Your task to perform on an android device: What's the news this weekend? Image 0: 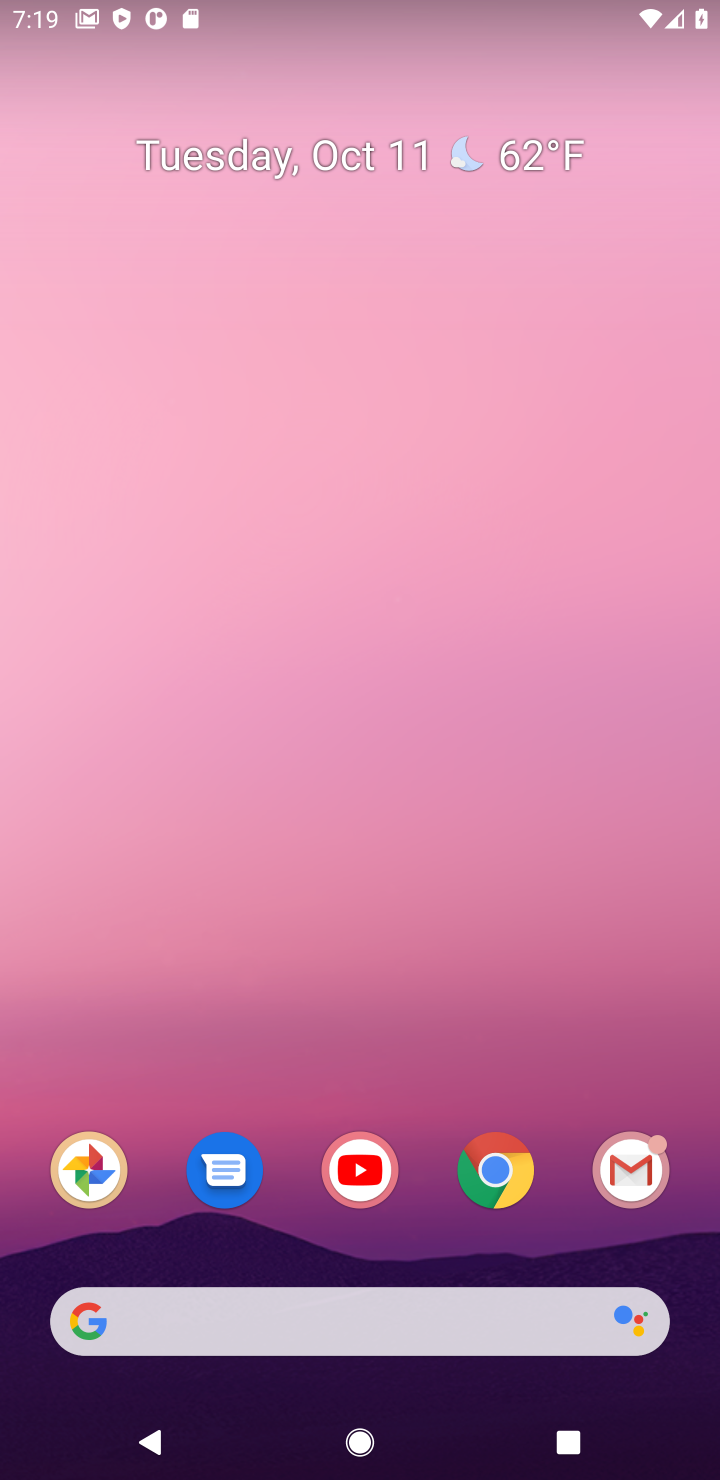
Step 0: drag from (364, 1295) to (418, 352)
Your task to perform on an android device: What's the news this weekend? Image 1: 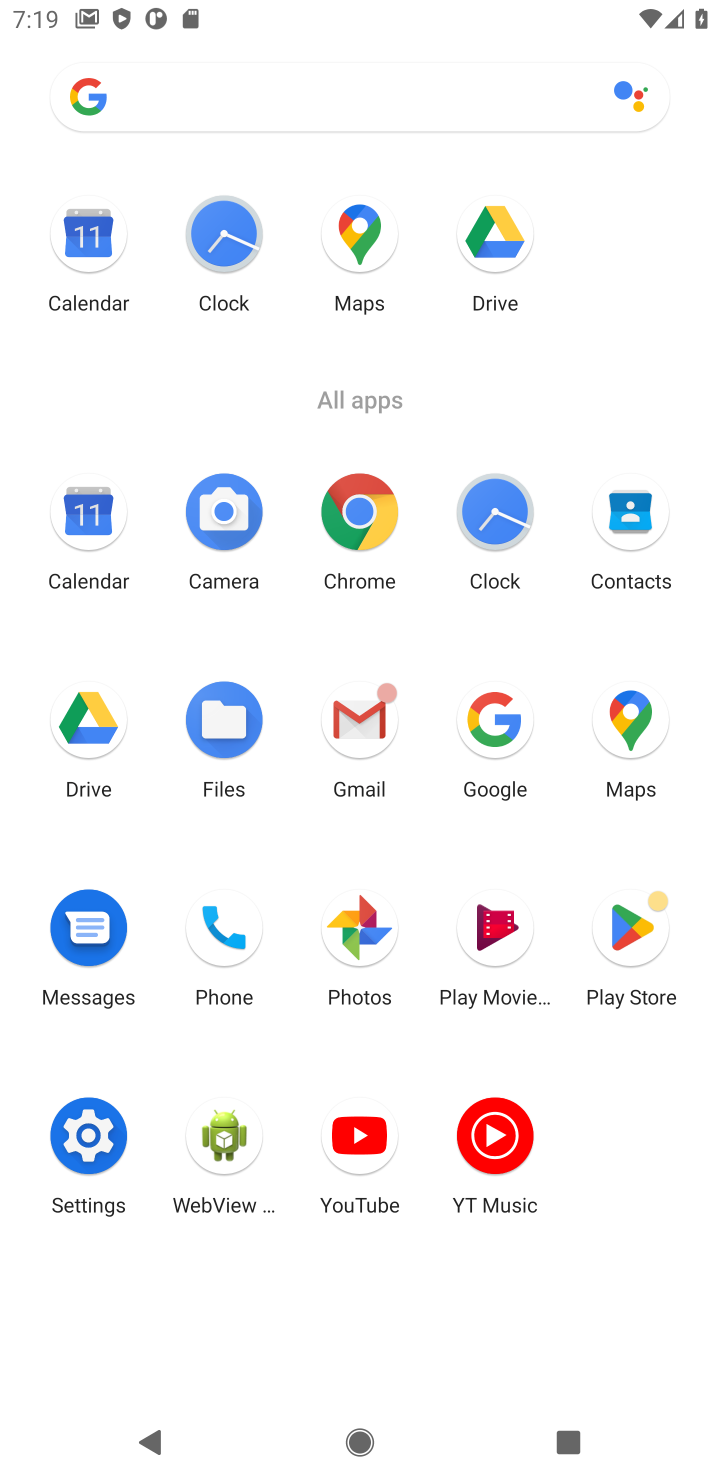
Step 1: click (499, 696)
Your task to perform on an android device: What's the news this weekend? Image 2: 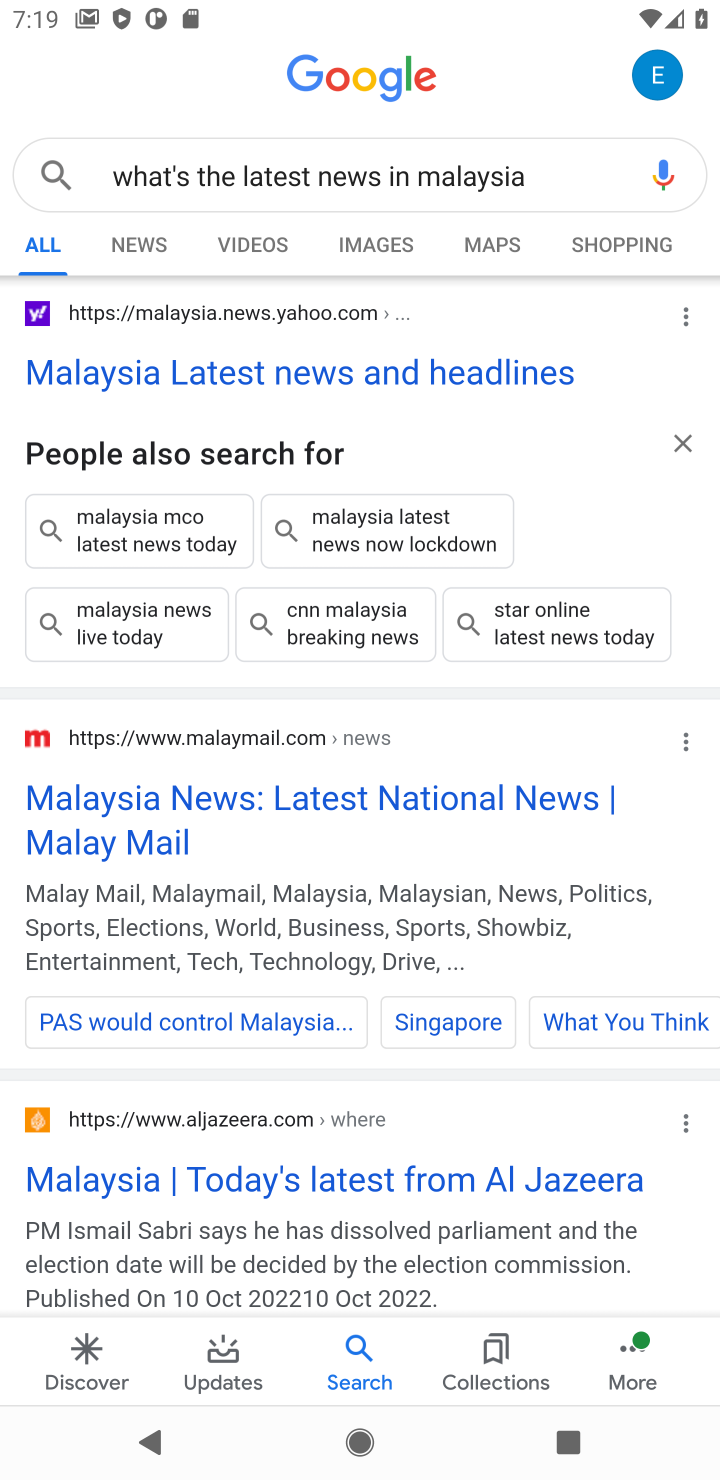
Step 2: click (353, 171)
Your task to perform on an android device: What's the news this weekend? Image 3: 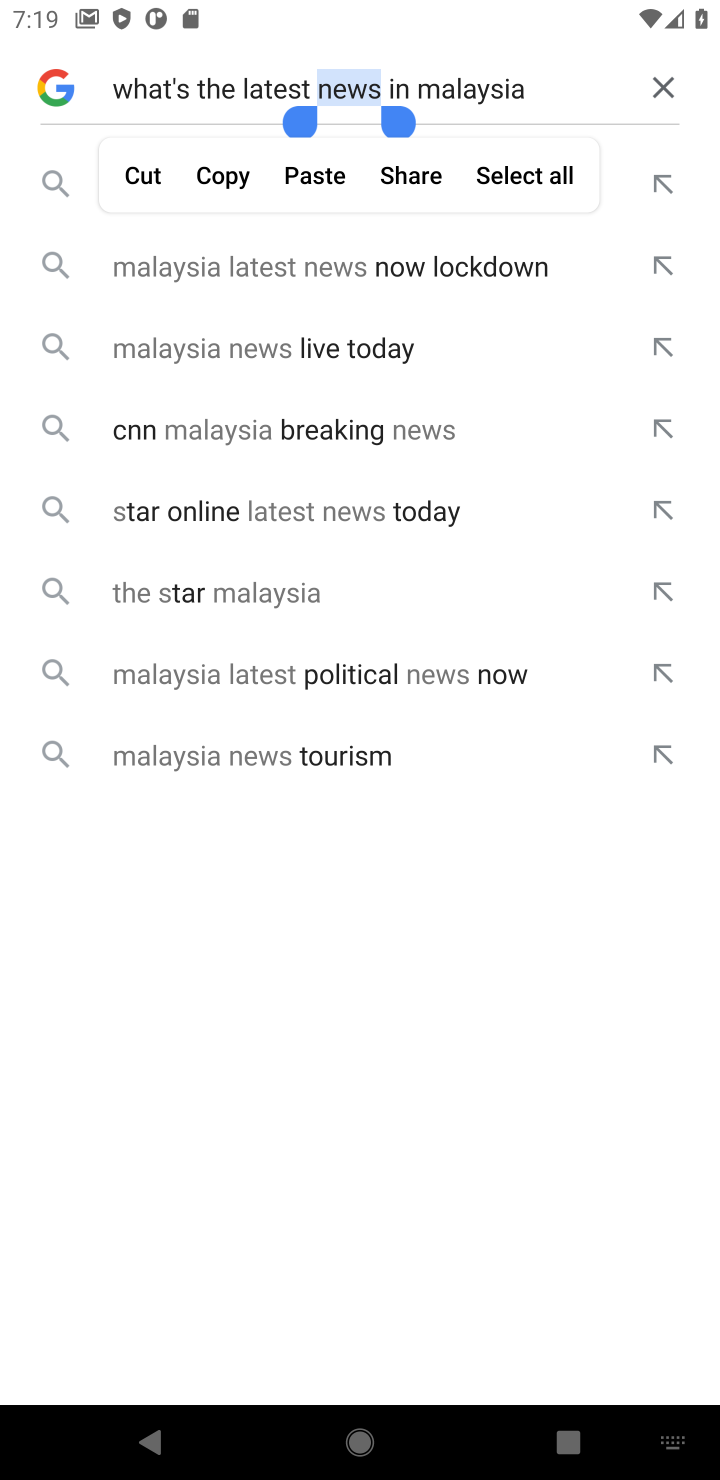
Step 3: click (652, 97)
Your task to perform on an android device: What's the news this weekend? Image 4: 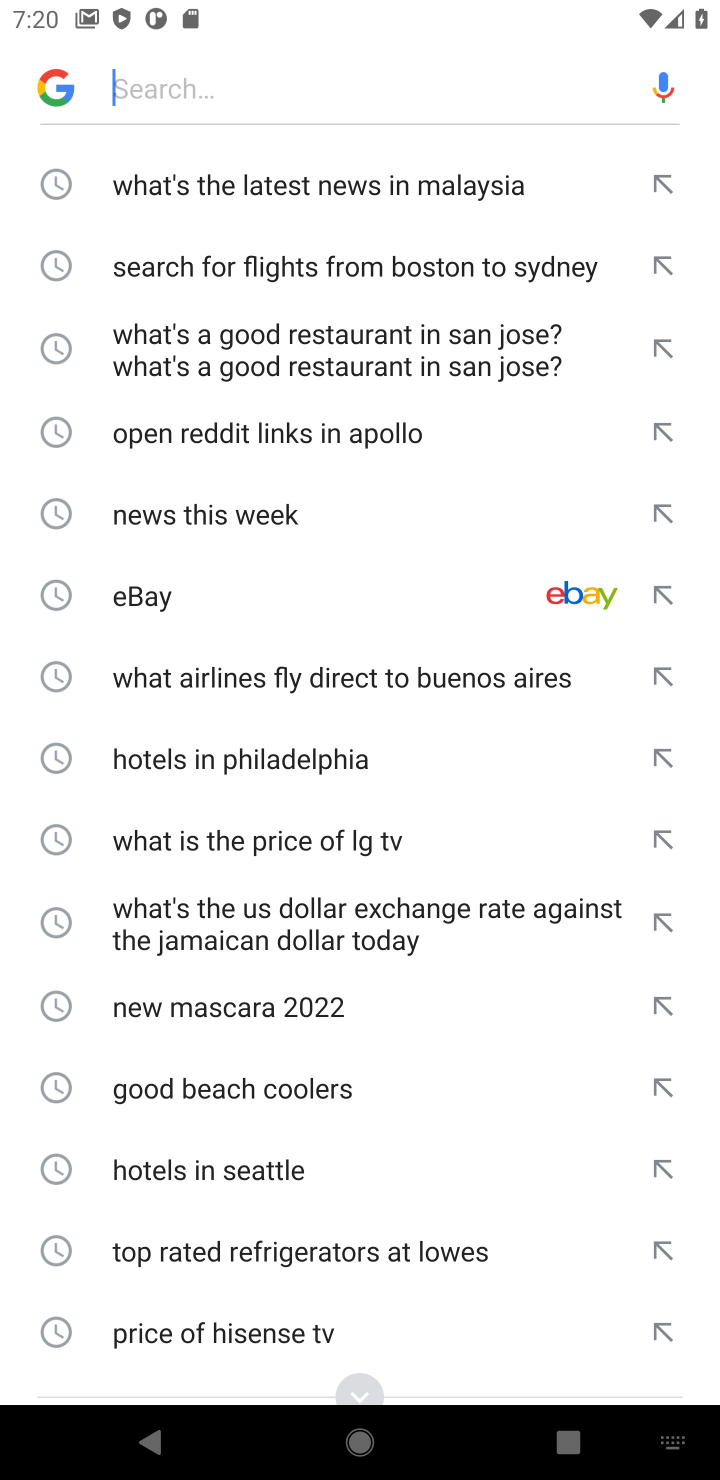
Step 4: click (419, 60)
Your task to perform on an android device: What's the news this weekend? Image 5: 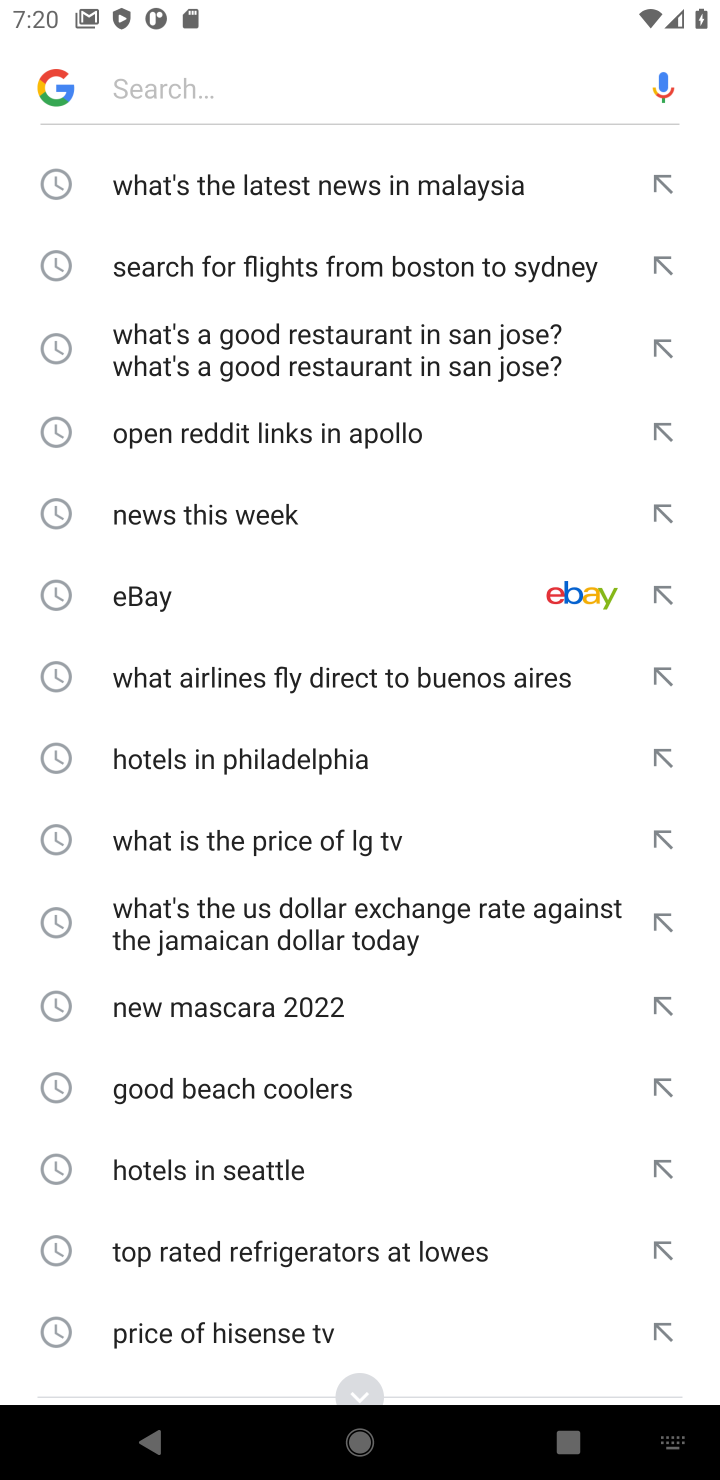
Step 5: type "What's the news this weekend? "
Your task to perform on an android device: What's the news this weekend? Image 6: 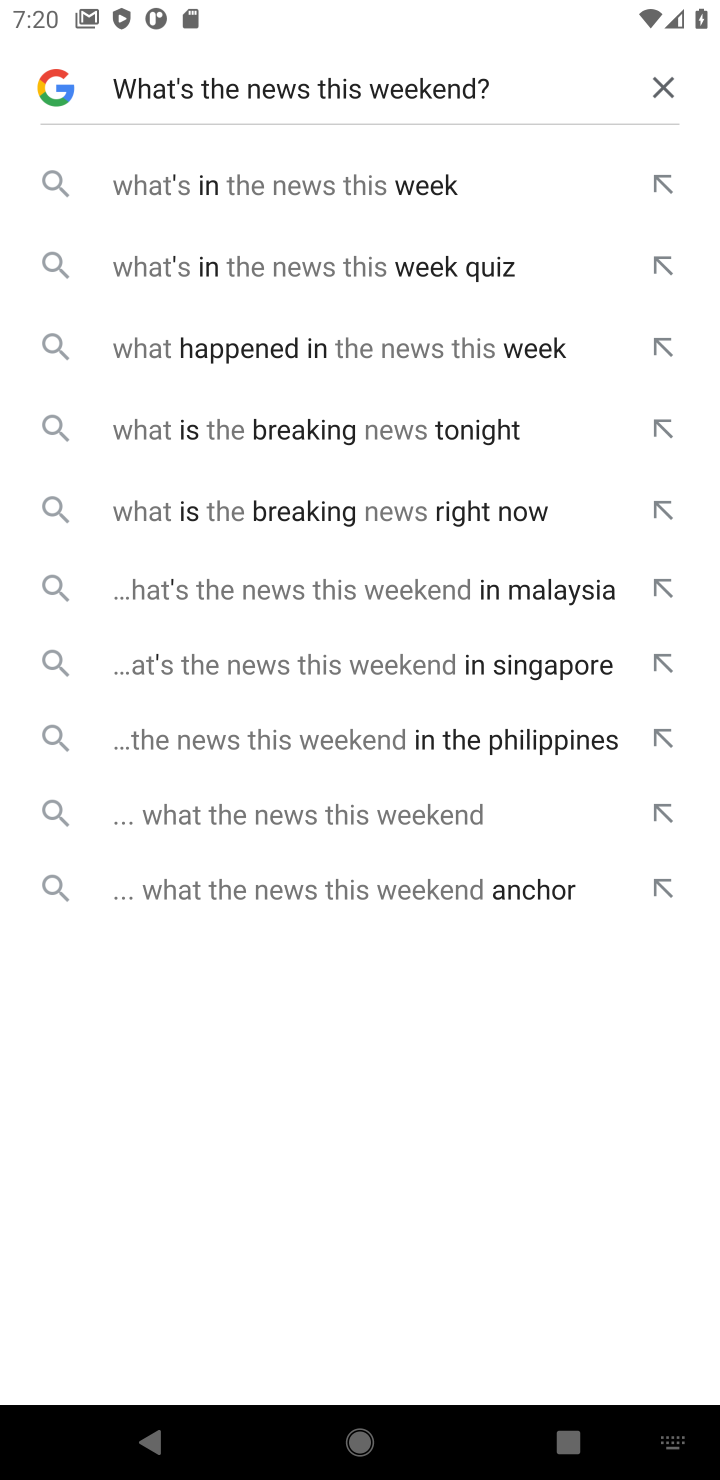
Step 6: click (351, 187)
Your task to perform on an android device: What's the news this weekend? Image 7: 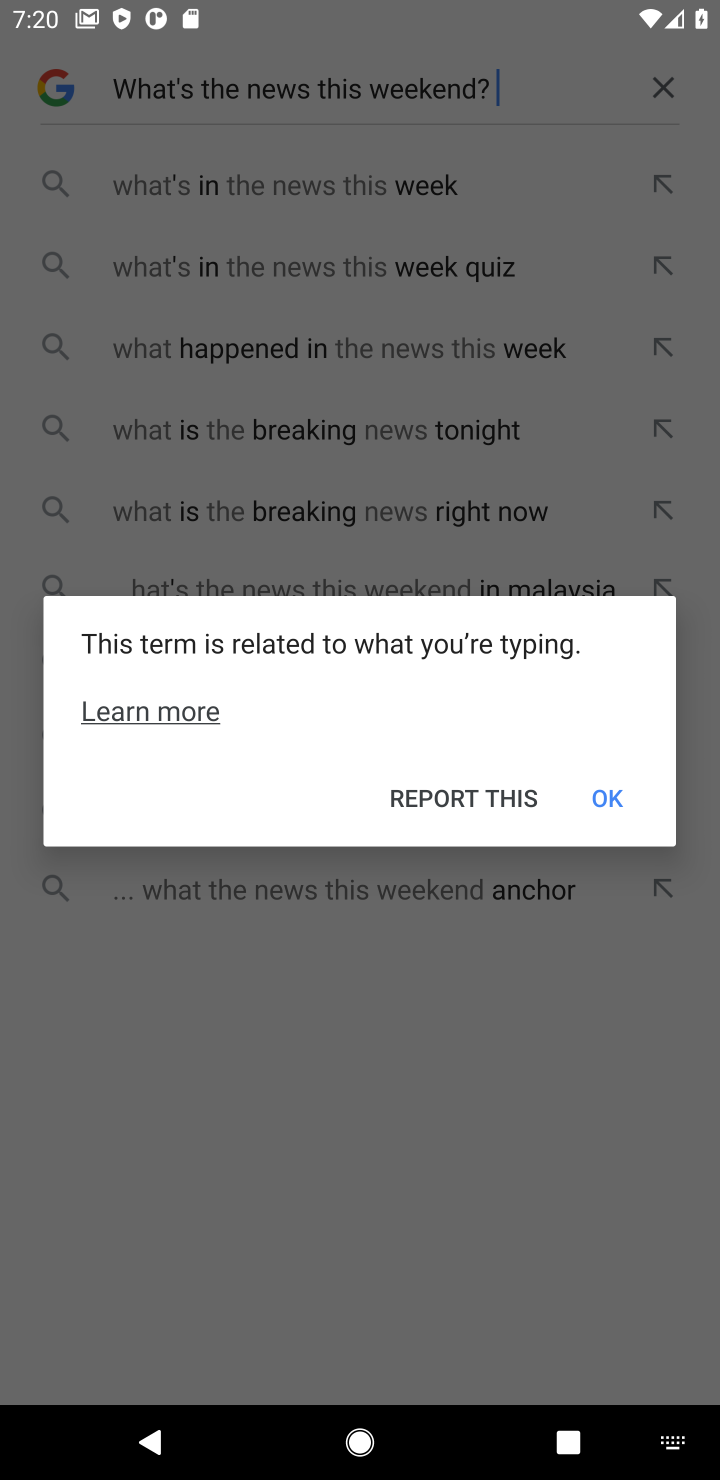
Step 7: click (624, 799)
Your task to perform on an android device: What's the news this weekend? Image 8: 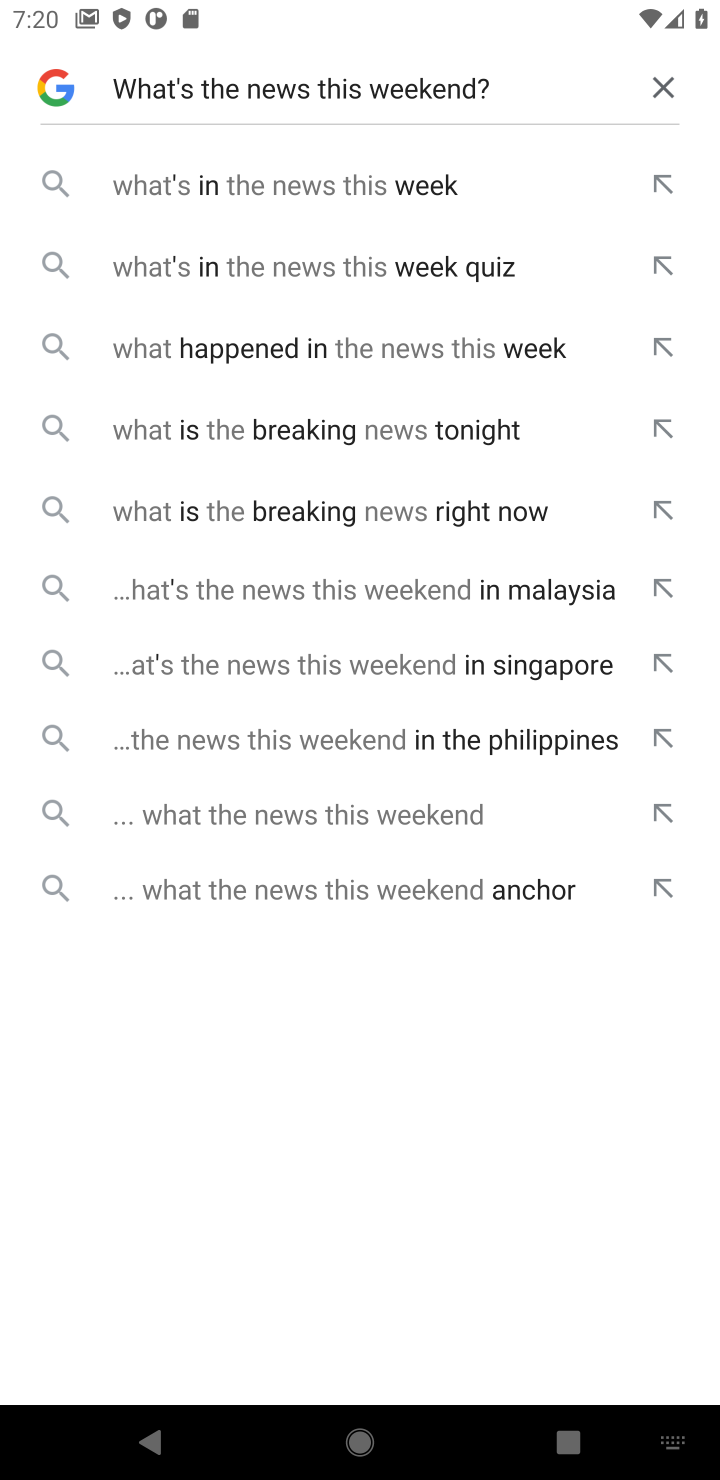
Step 8: click (263, 173)
Your task to perform on an android device: What's the news this weekend? Image 9: 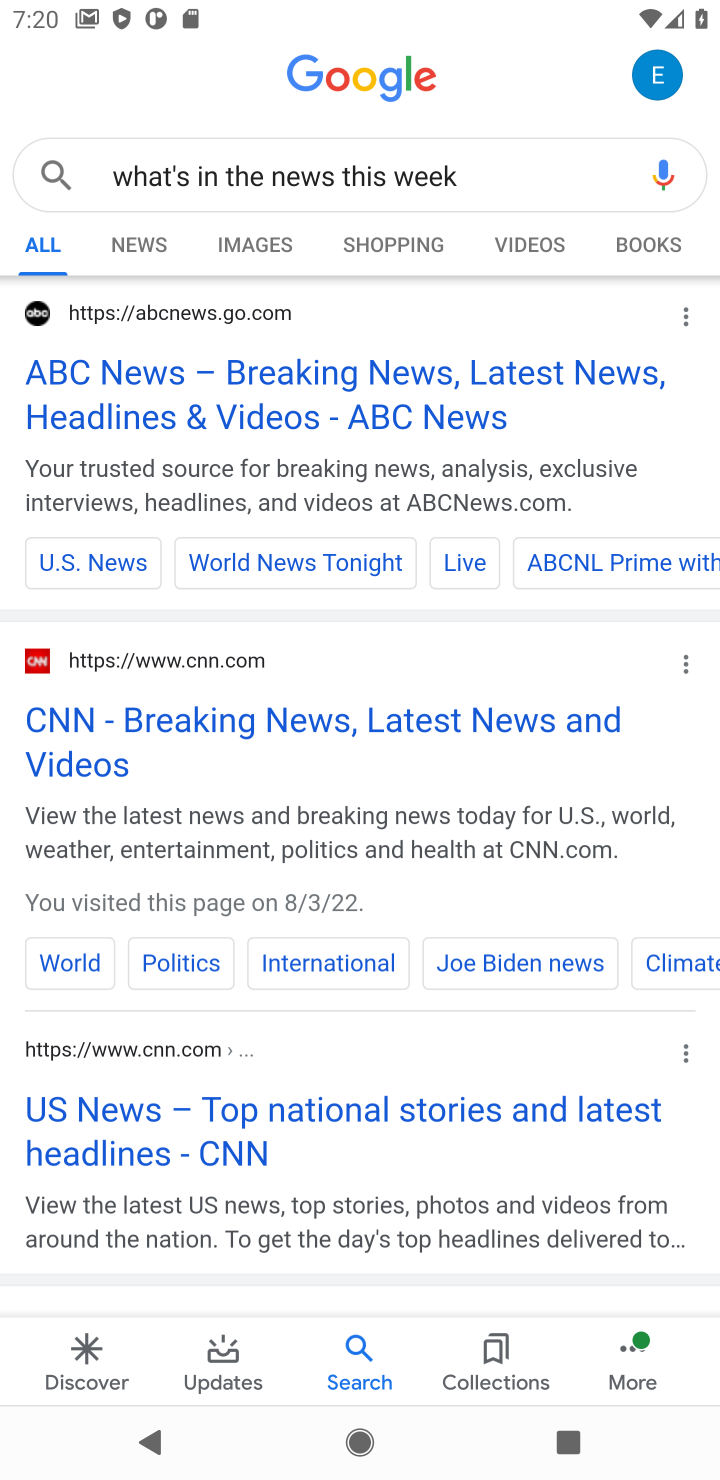
Step 9: click (228, 365)
Your task to perform on an android device: What's the news this weekend? Image 10: 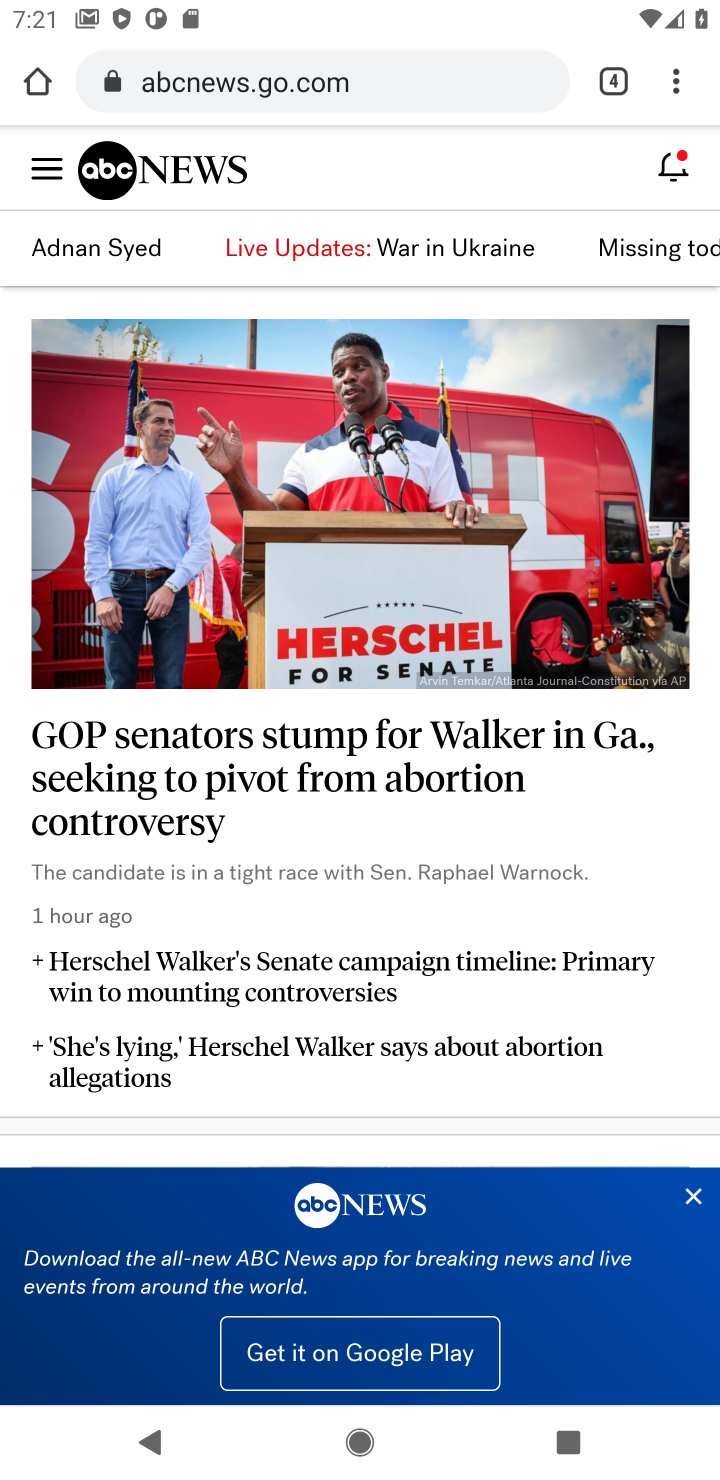
Step 10: click (687, 1192)
Your task to perform on an android device: What's the news this weekend? Image 11: 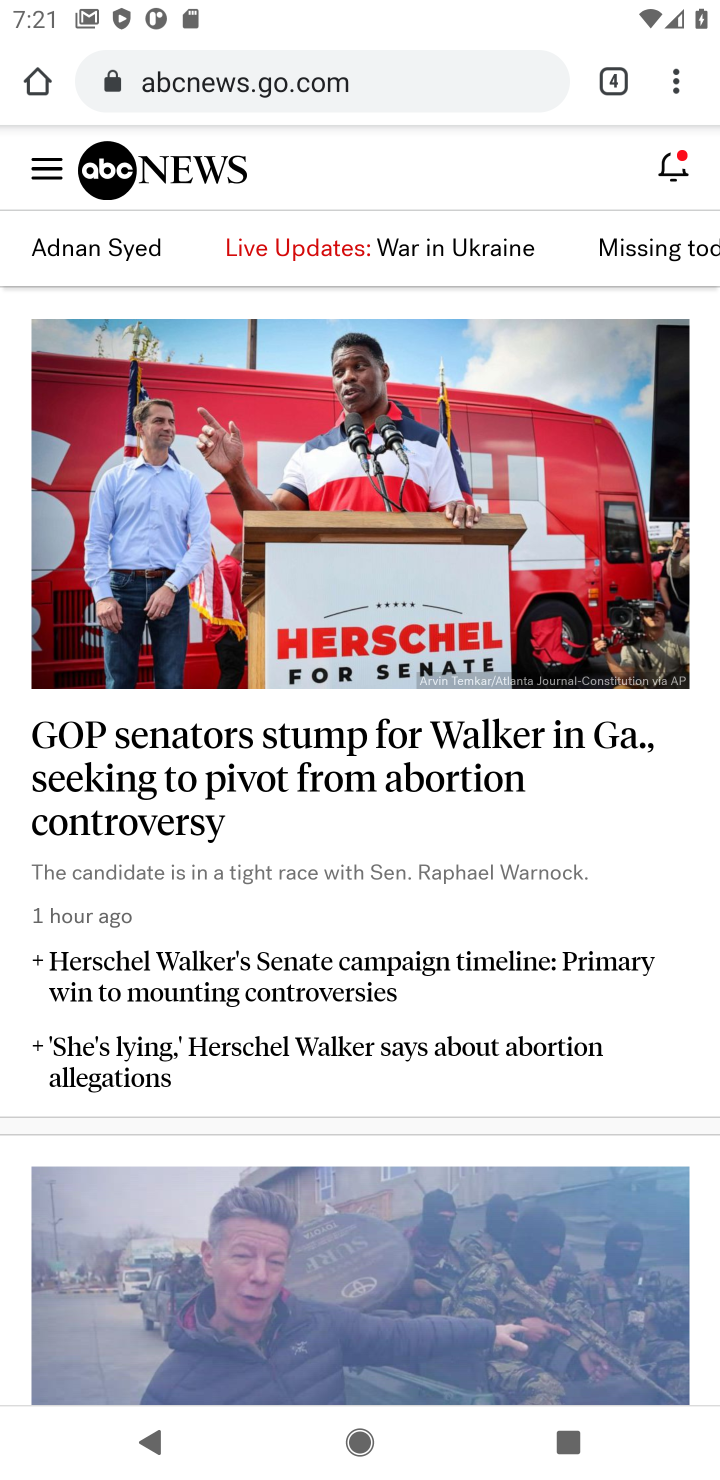
Step 11: task complete